Your task to perform on an android device: Open network settings Image 0: 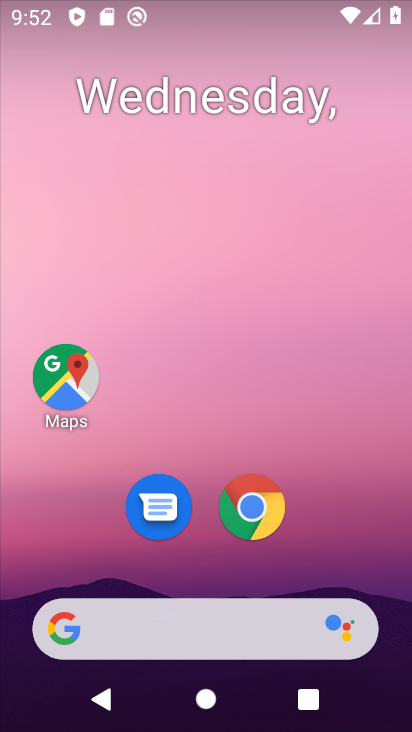
Step 0: drag from (241, 667) to (352, 216)
Your task to perform on an android device: Open network settings Image 1: 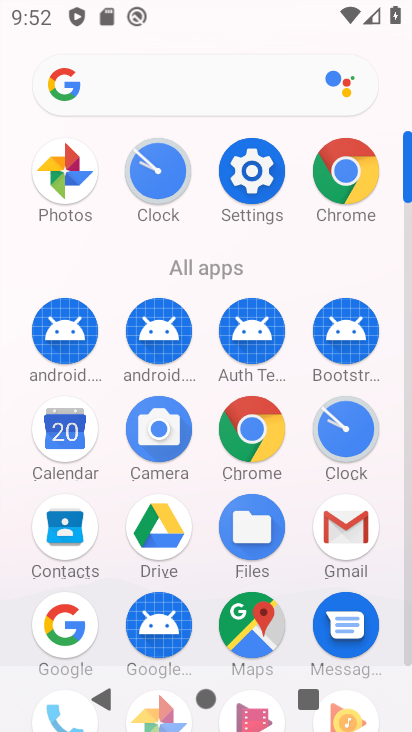
Step 1: click (269, 194)
Your task to perform on an android device: Open network settings Image 2: 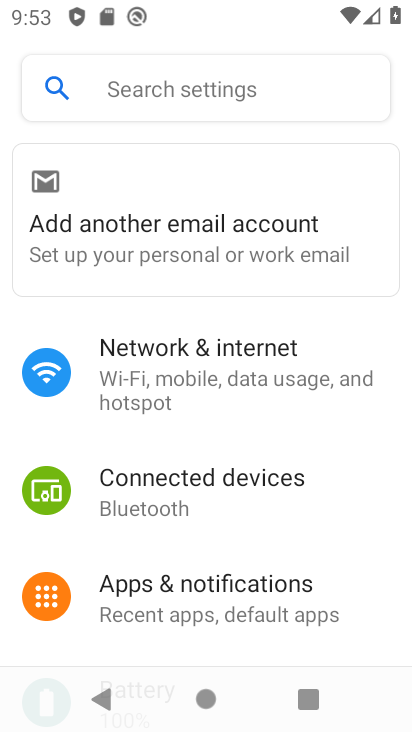
Step 2: click (164, 351)
Your task to perform on an android device: Open network settings Image 3: 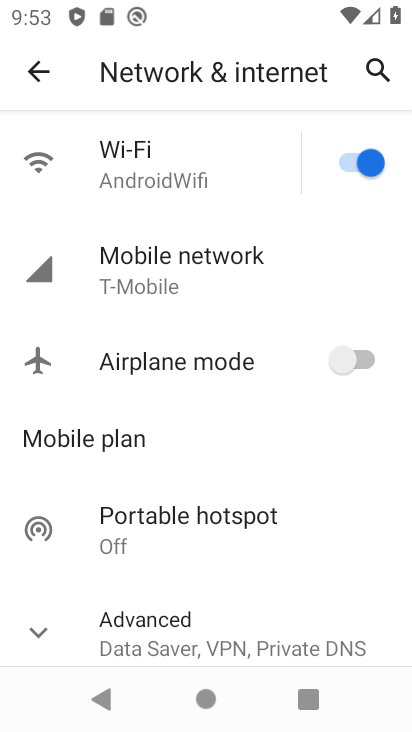
Step 3: click (145, 303)
Your task to perform on an android device: Open network settings Image 4: 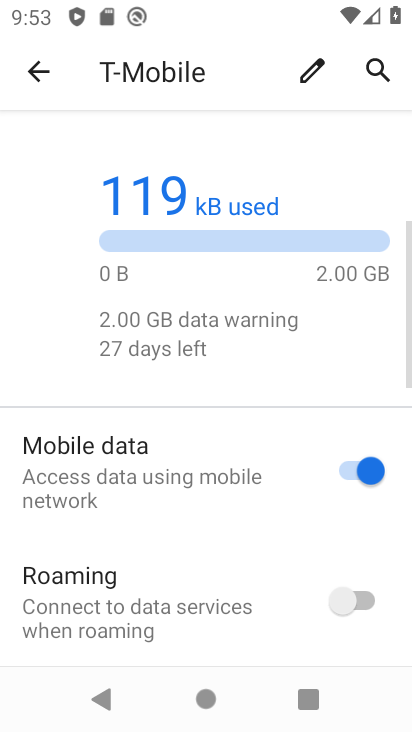
Step 4: task complete